Your task to perform on an android device: toggle data saver in the chrome app Image 0: 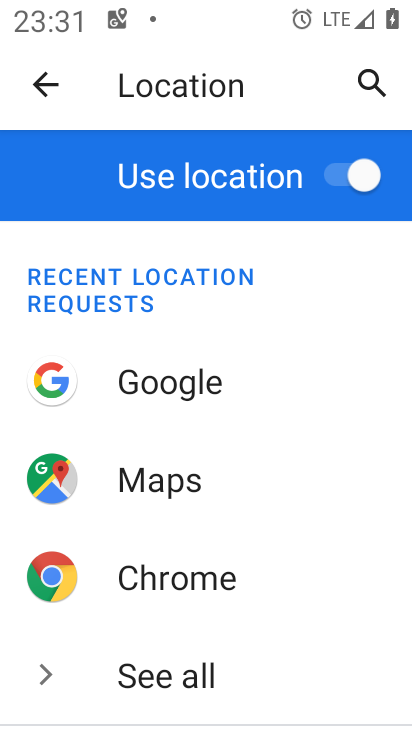
Step 0: press home button
Your task to perform on an android device: toggle data saver in the chrome app Image 1: 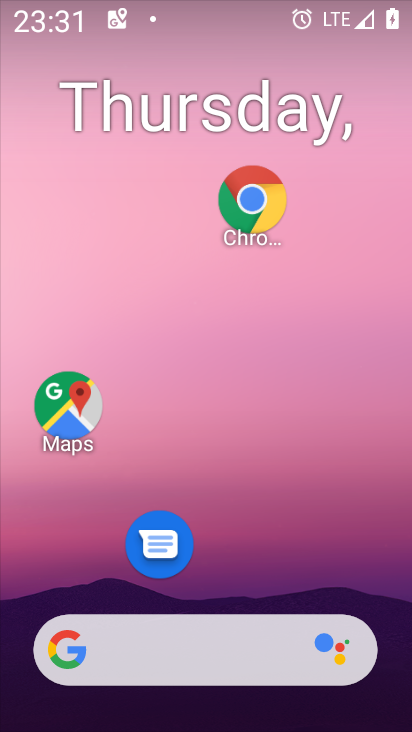
Step 1: click (255, 205)
Your task to perform on an android device: toggle data saver in the chrome app Image 2: 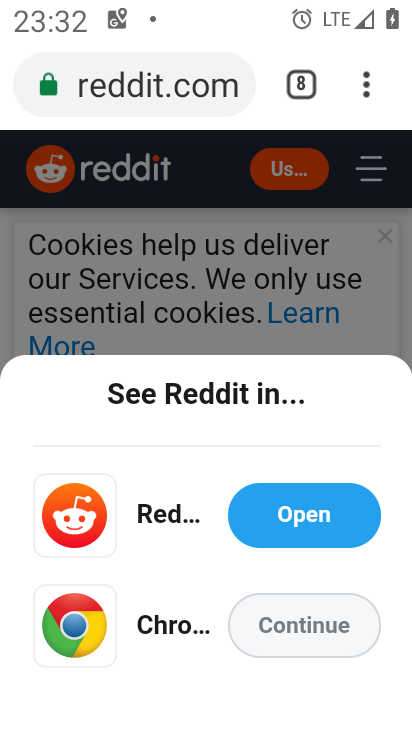
Step 2: click (354, 84)
Your task to perform on an android device: toggle data saver in the chrome app Image 3: 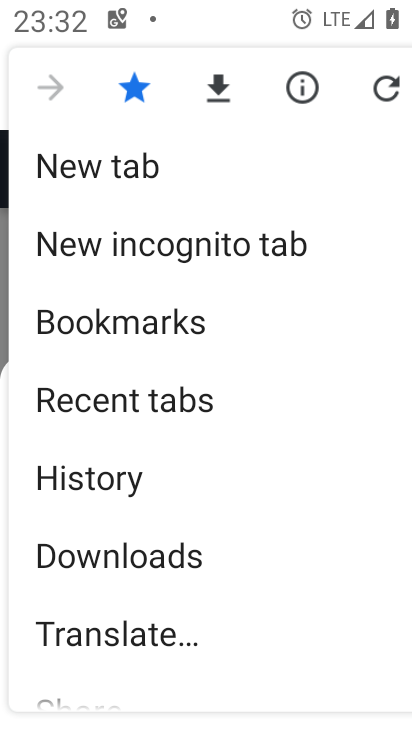
Step 3: drag from (107, 598) to (125, 471)
Your task to perform on an android device: toggle data saver in the chrome app Image 4: 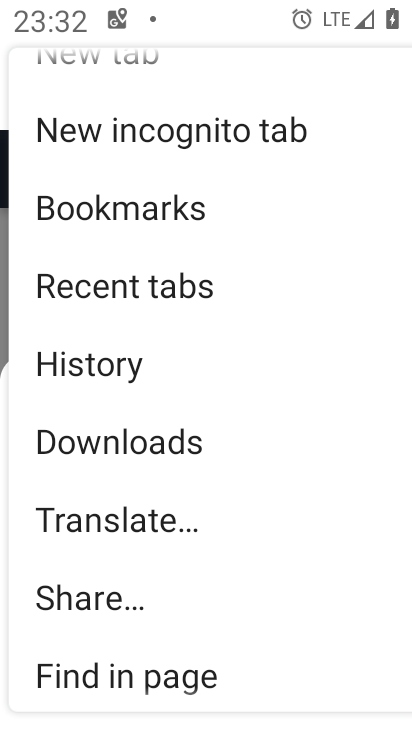
Step 4: drag from (204, 569) to (233, 226)
Your task to perform on an android device: toggle data saver in the chrome app Image 5: 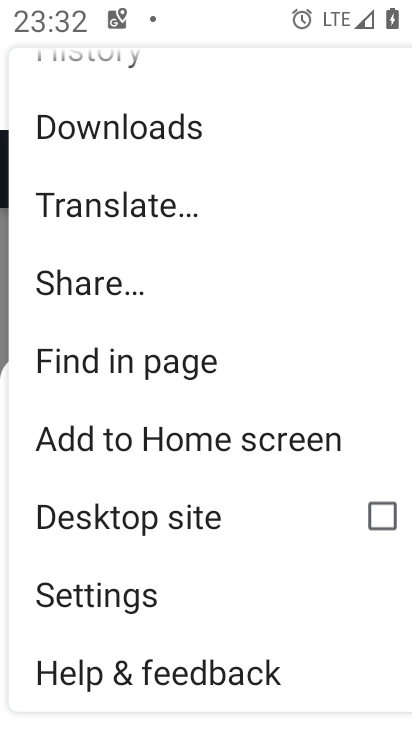
Step 5: click (126, 611)
Your task to perform on an android device: toggle data saver in the chrome app Image 6: 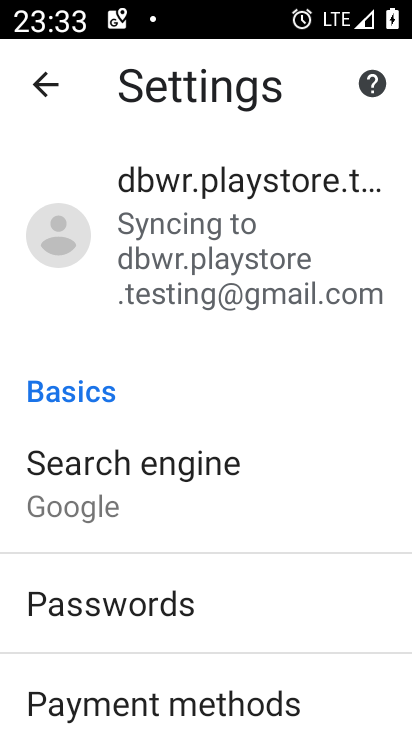
Step 6: drag from (117, 636) to (155, 303)
Your task to perform on an android device: toggle data saver in the chrome app Image 7: 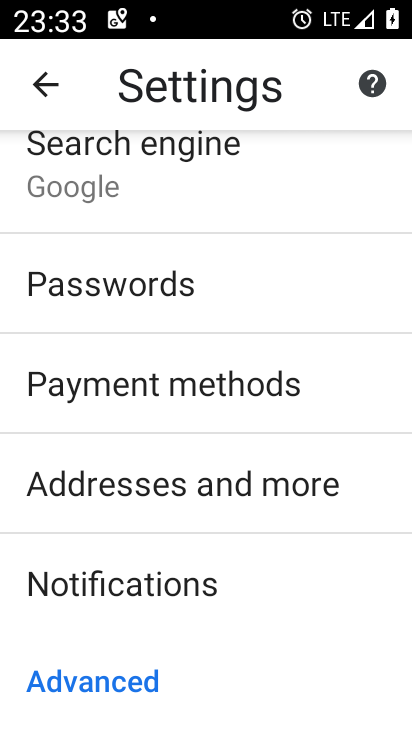
Step 7: drag from (180, 582) to (274, 176)
Your task to perform on an android device: toggle data saver in the chrome app Image 8: 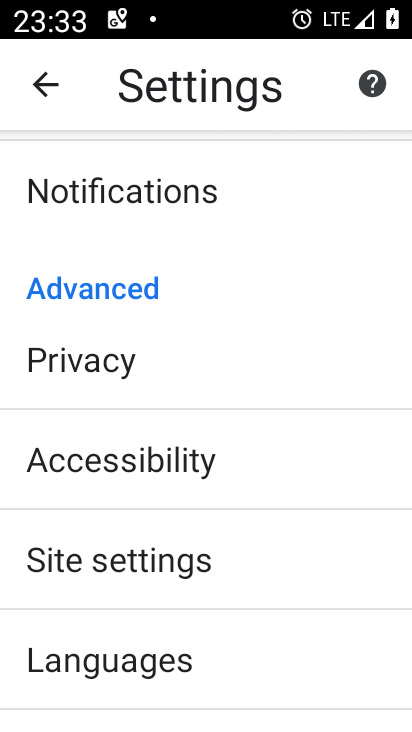
Step 8: drag from (117, 633) to (166, 451)
Your task to perform on an android device: toggle data saver in the chrome app Image 9: 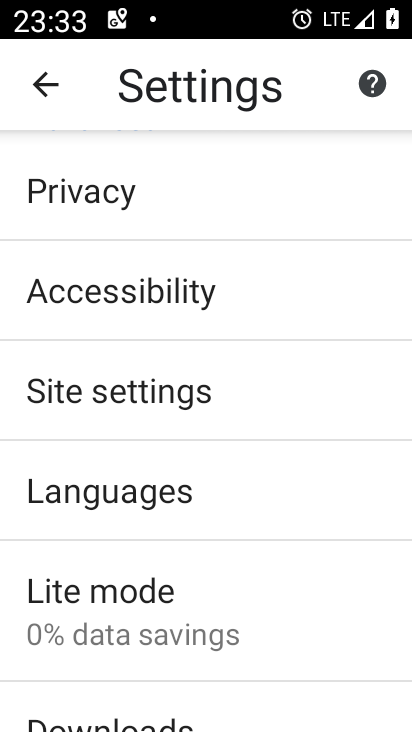
Step 9: click (172, 387)
Your task to perform on an android device: toggle data saver in the chrome app Image 10: 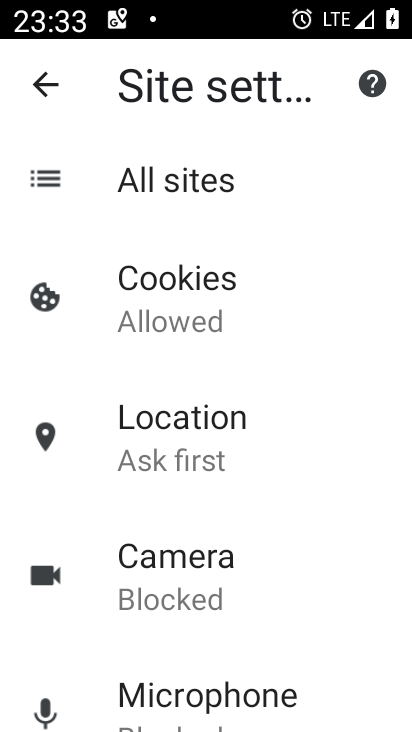
Step 10: drag from (142, 586) to (148, 534)
Your task to perform on an android device: toggle data saver in the chrome app Image 11: 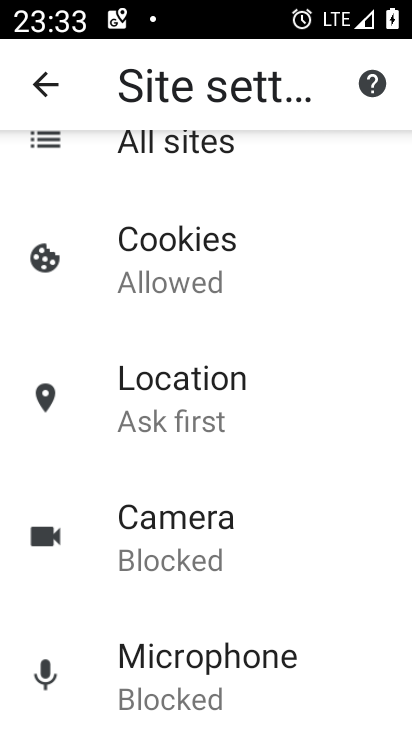
Step 11: drag from (110, 635) to (234, 176)
Your task to perform on an android device: toggle data saver in the chrome app Image 12: 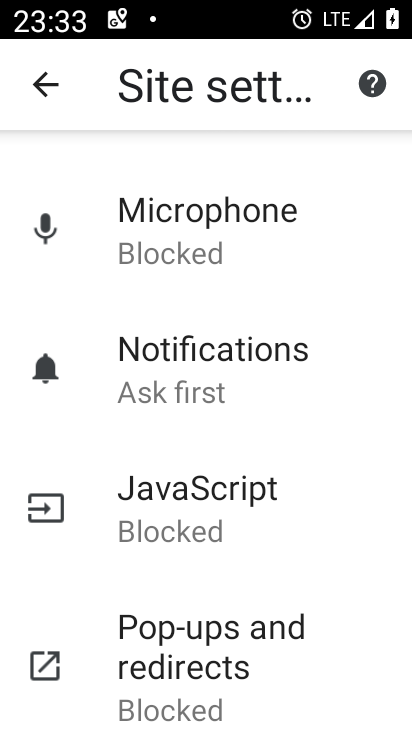
Step 12: click (49, 92)
Your task to perform on an android device: toggle data saver in the chrome app Image 13: 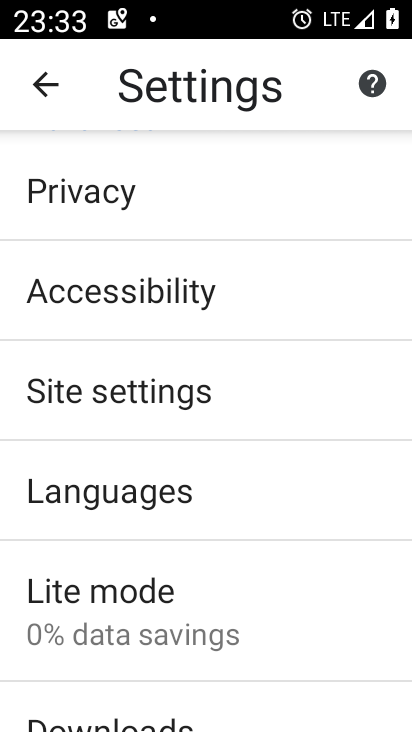
Step 13: drag from (103, 613) to (168, 369)
Your task to perform on an android device: toggle data saver in the chrome app Image 14: 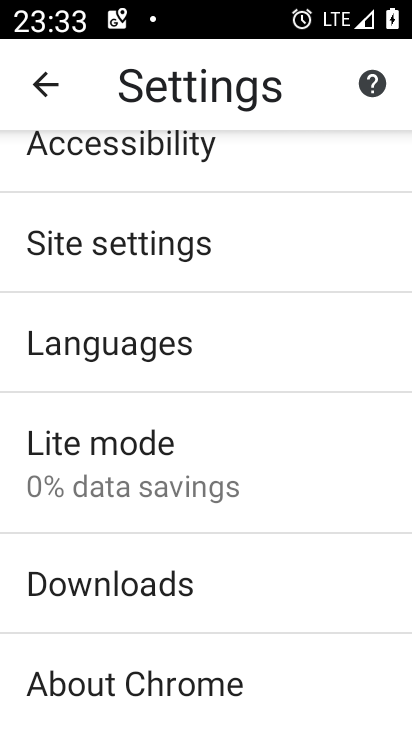
Step 14: click (148, 459)
Your task to perform on an android device: toggle data saver in the chrome app Image 15: 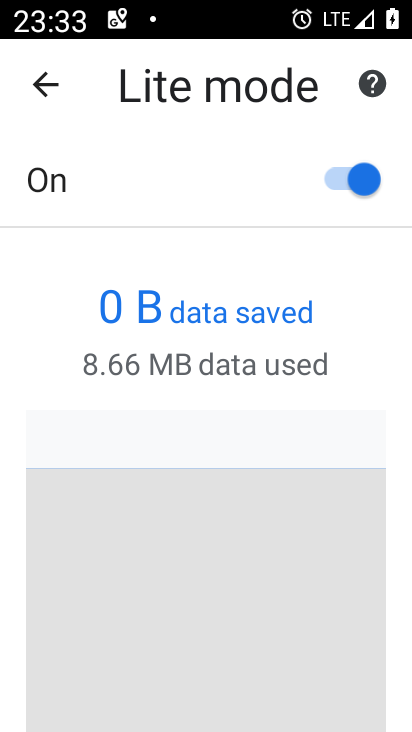
Step 15: click (326, 196)
Your task to perform on an android device: toggle data saver in the chrome app Image 16: 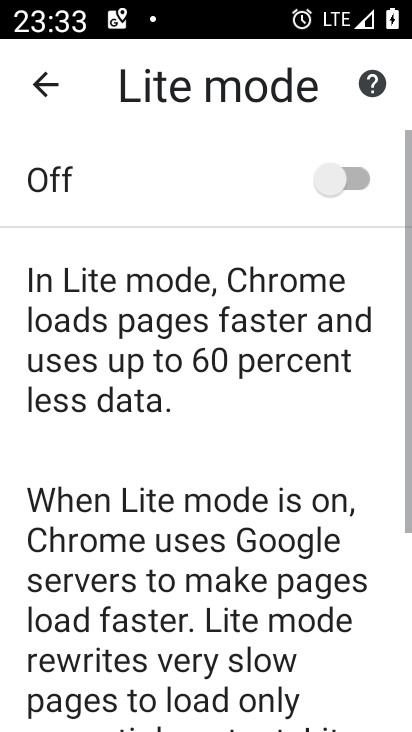
Step 16: click (326, 196)
Your task to perform on an android device: toggle data saver in the chrome app Image 17: 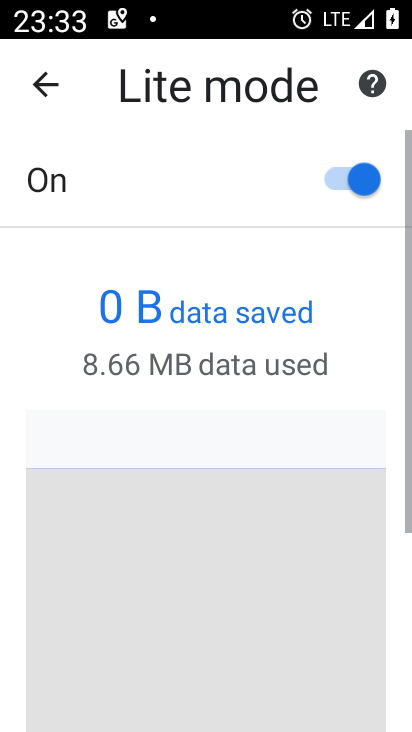
Step 17: task complete